Your task to perform on an android device: open device folders in google photos Image 0: 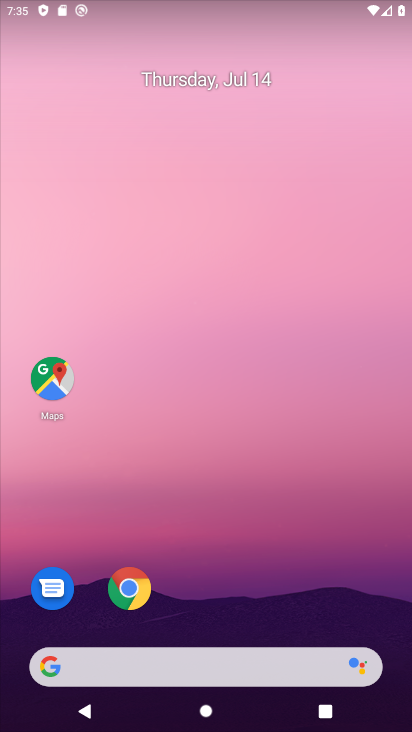
Step 0: drag from (317, 43) to (329, 2)
Your task to perform on an android device: open device folders in google photos Image 1: 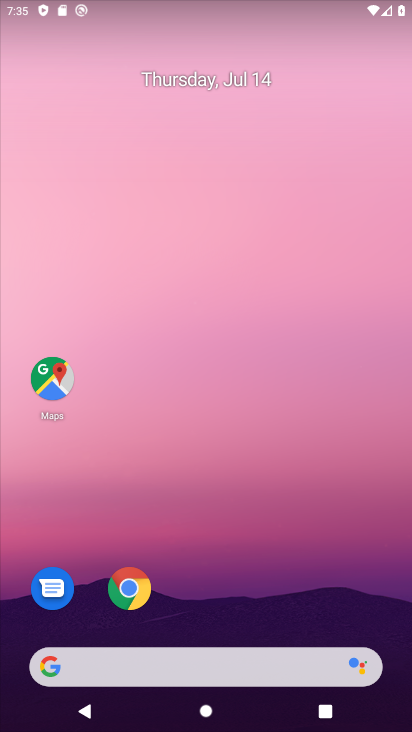
Step 1: drag from (56, 696) to (192, 235)
Your task to perform on an android device: open device folders in google photos Image 2: 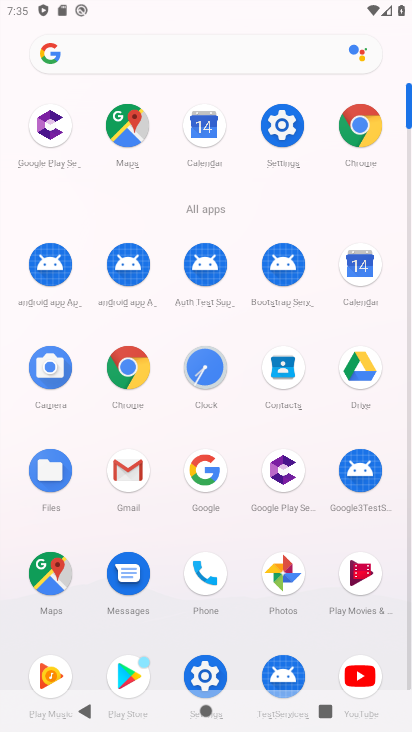
Step 2: click (278, 573)
Your task to perform on an android device: open device folders in google photos Image 3: 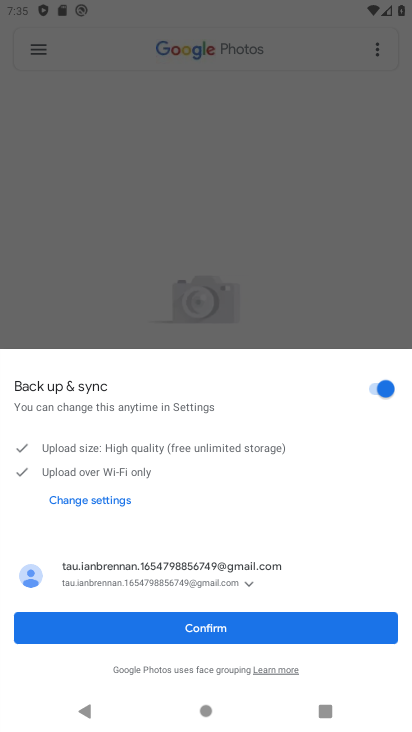
Step 3: click (173, 623)
Your task to perform on an android device: open device folders in google photos Image 4: 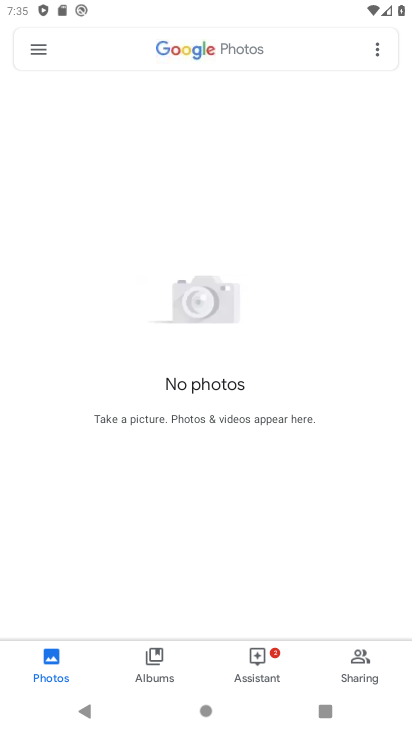
Step 4: click (33, 41)
Your task to perform on an android device: open device folders in google photos Image 5: 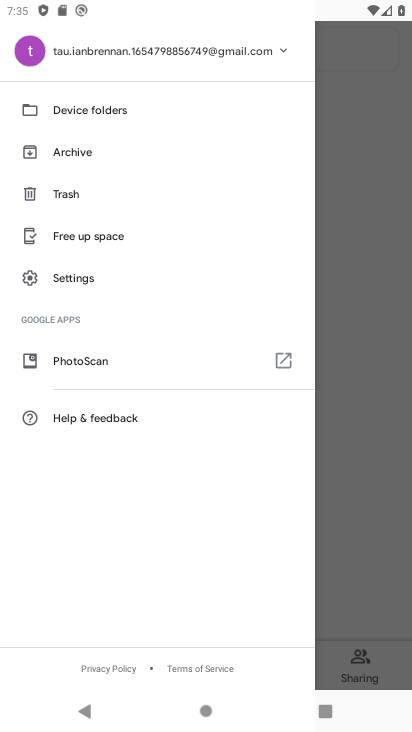
Step 5: click (82, 102)
Your task to perform on an android device: open device folders in google photos Image 6: 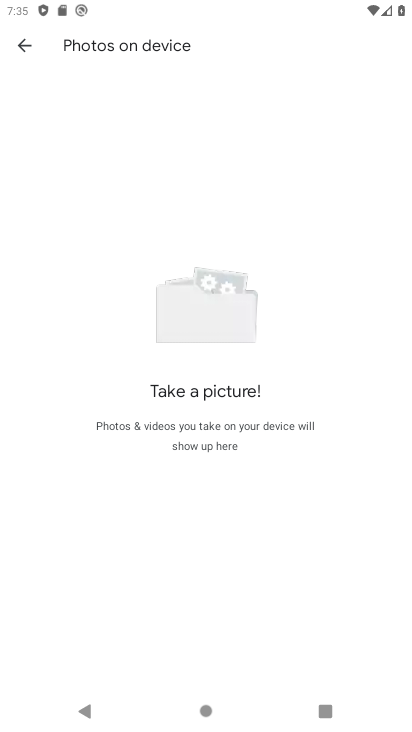
Step 6: task complete